Your task to perform on an android device: turn on data saver in the chrome app Image 0: 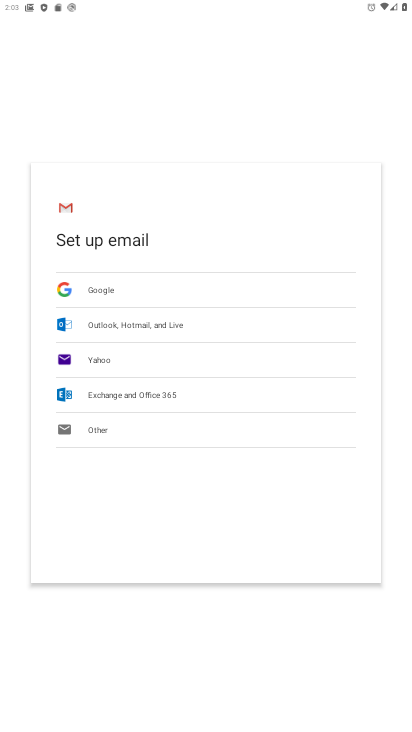
Step 0: press home button
Your task to perform on an android device: turn on data saver in the chrome app Image 1: 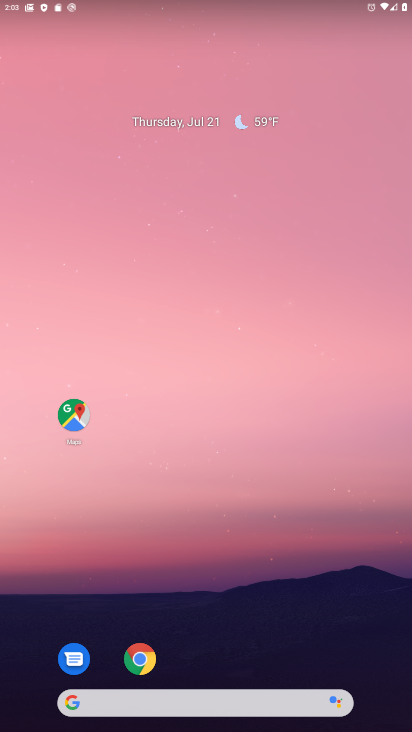
Step 1: drag from (285, 584) to (216, 62)
Your task to perform on an android device: turn on data saver in the chrome app Image 2: 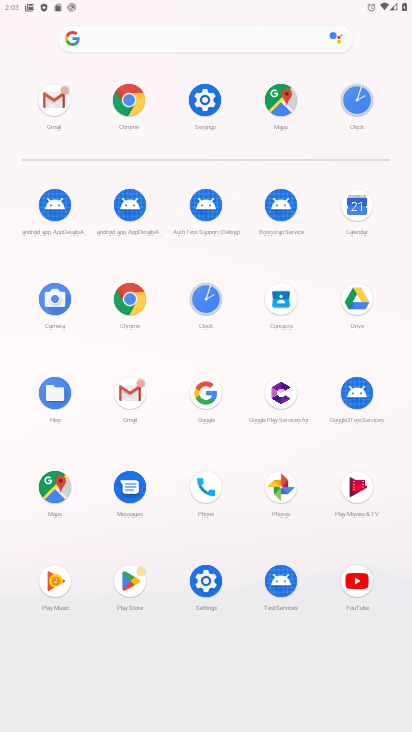
Step 2: click (126, 297)
Your task to perform on an android device: turn on data saver in the chrome app Image 3: 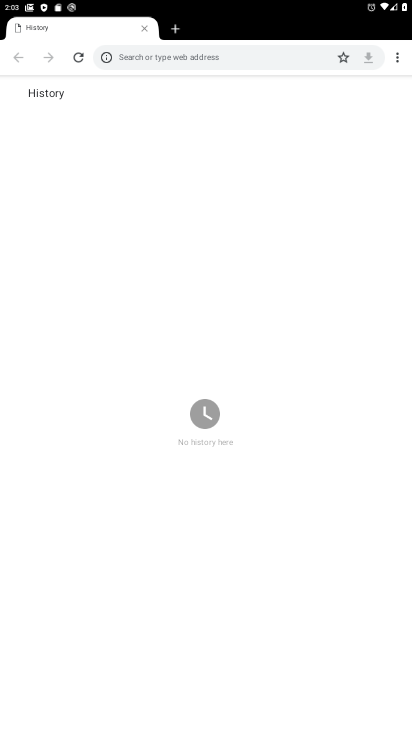
Step 3: drag from (398, 52) to (300, 254)
Your task to perform on an android device: turn on data saver in the chrome app Image 4: 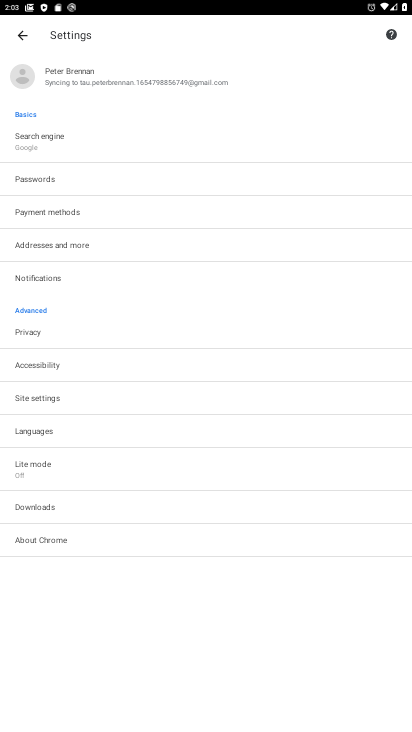
Step 4: click (40, 482)
Your task to perform on an android device: turn on data saver in the chrome app Image 5: 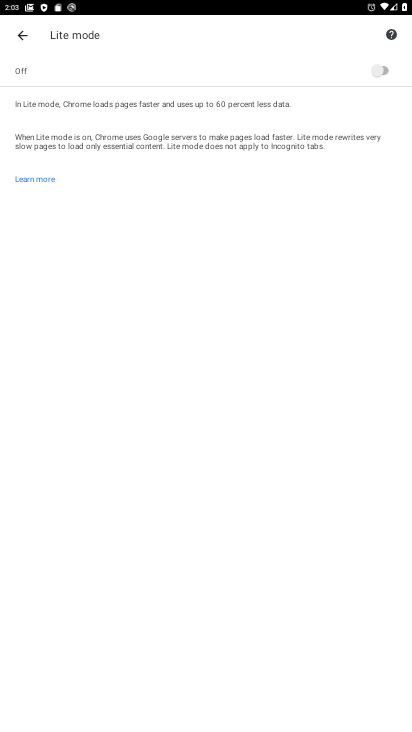
Step 5: click (369, 65)
Your task to perform on an android device: turn on data saver in the chrome app Image 6: 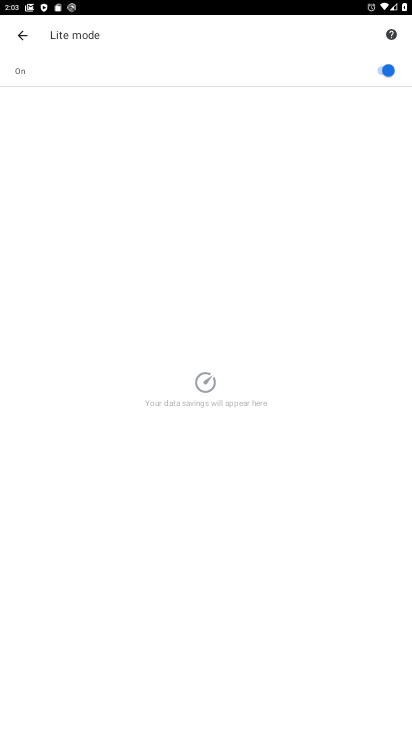
Step 6: task complete